Your task to perform on an android device: Open Android settings Image 0: 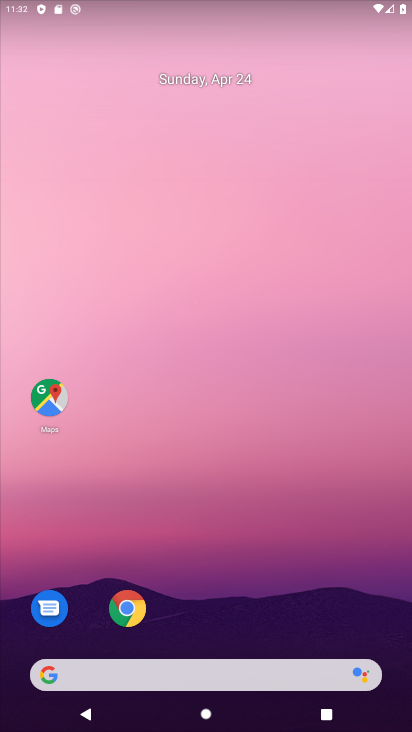
Step 0: drag from (231, 722) to (233, 82)
Your task to perform on an android device: Open Android settings Image 1: 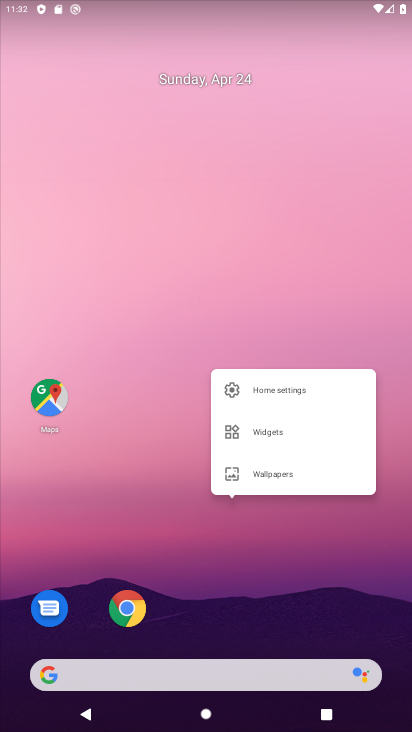
Step 1: click (212, 224)
Your task to perform on an android device: Open Android settings Image 2: 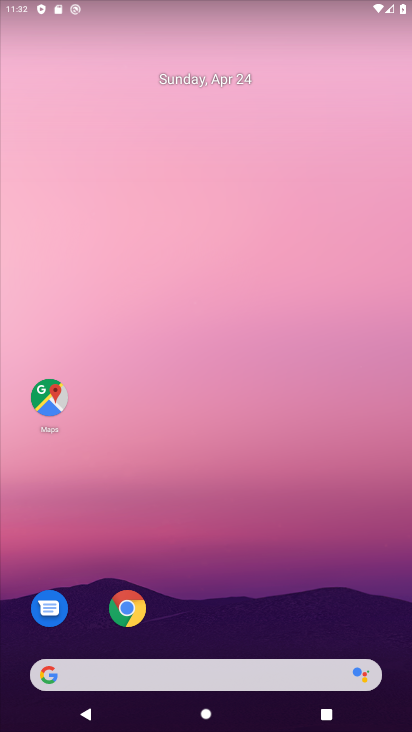
Step 2: drag from (226, 727) to (229, 170)
Your task to perform on an android device: Open Android settings Image 3: 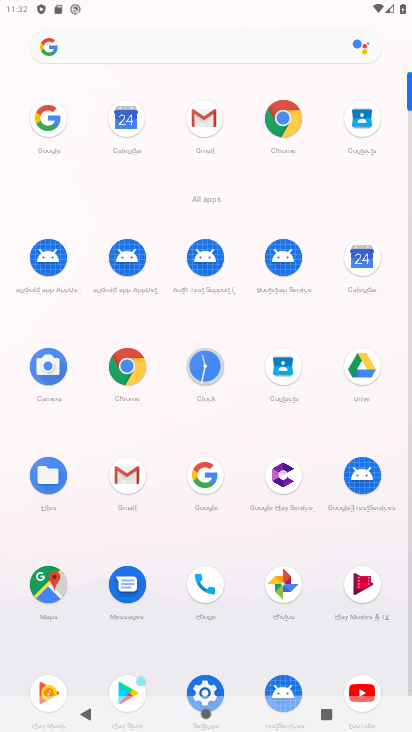
Step 3: click (208, 685)
Your task to perform on an android device: Open Android settings Image 4: 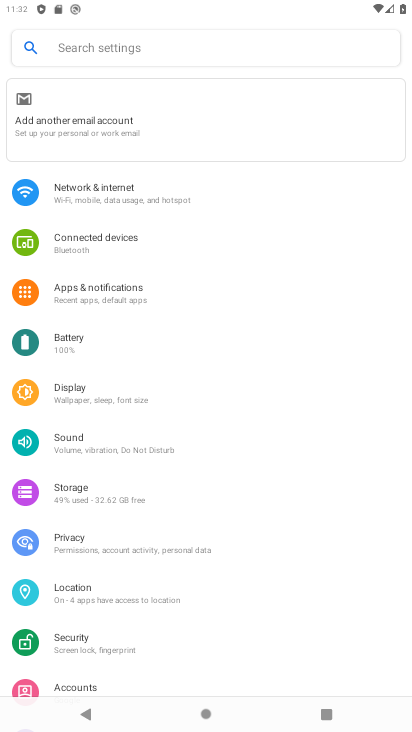
Step 4: drag from (192, 616) to (186, 191)
Your task to perform on an android device: Open Android settings Image 5: 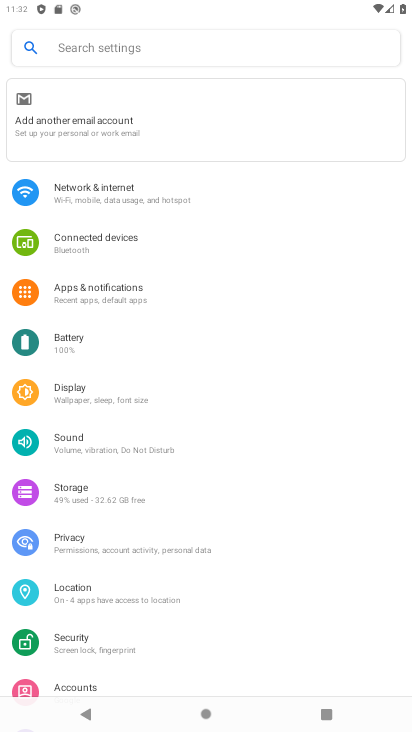
Step 5: drag from (189, 680) to (191, 122)
Your task to perform on an android device: Open Android settings Image 6: 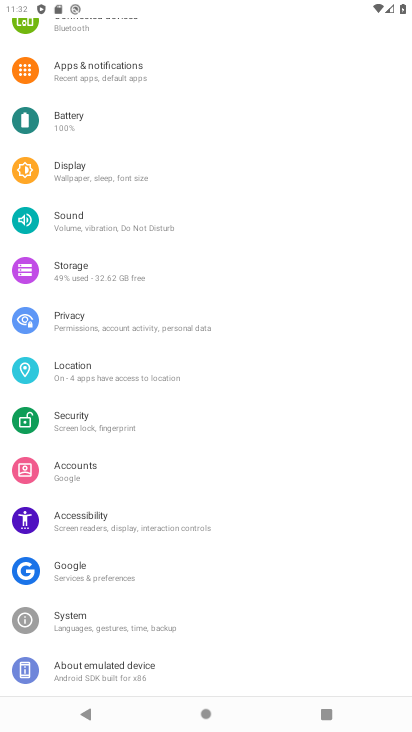
Step 6: click (85, 669)
Your task to perform on an android device: Open Android settings Image 7: 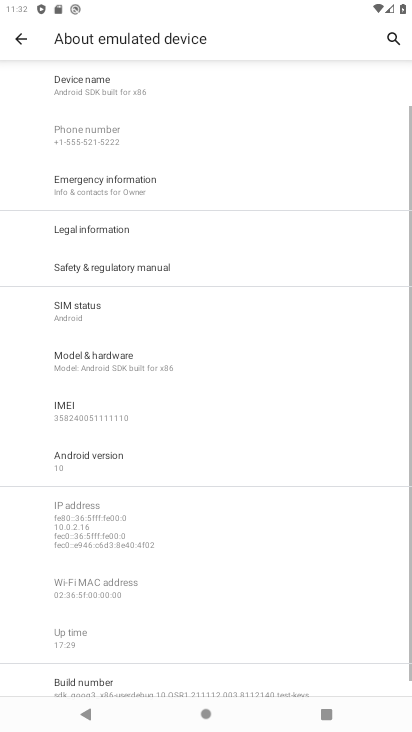
Step 7: click (85, 464)
Your task to perform on an android device: Open Android settings Image 8: 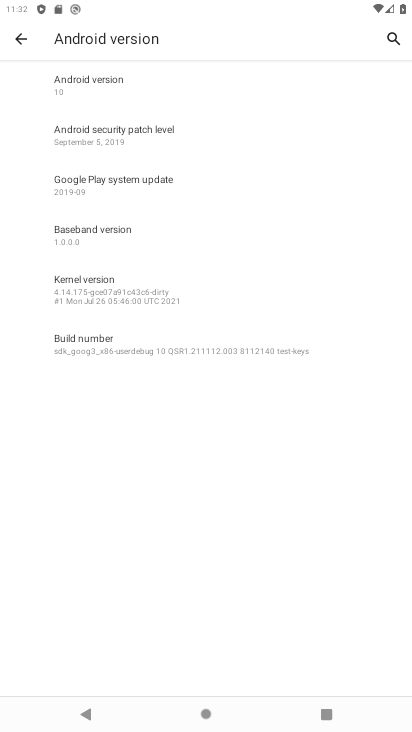
Step 8: task complete